Your task to perform on an android device: delete a single message in the gmail app Image 0: 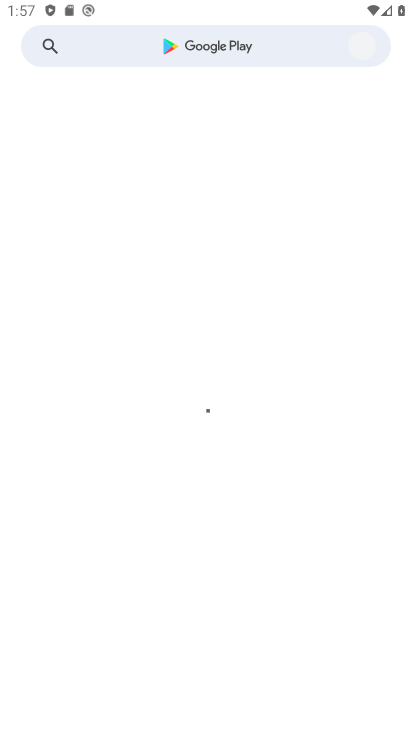
Step 0: press home button
Your task to perform on an android device: delete a single message in the gmail app Image 1: 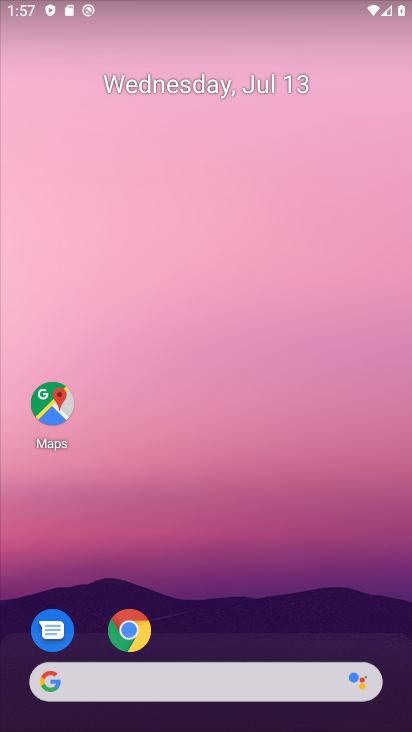
Step 1: drag from (174, 633) to (242, 164)
Your task to perform on an android device: delete a single message in the gmail app Image 2: 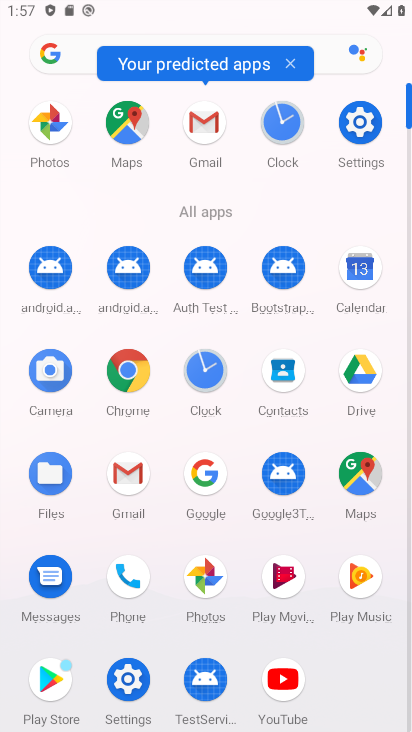
Step 2: click (127, 473)
Your task to perform on an android device: delete a single message in the gmail app Image 3: 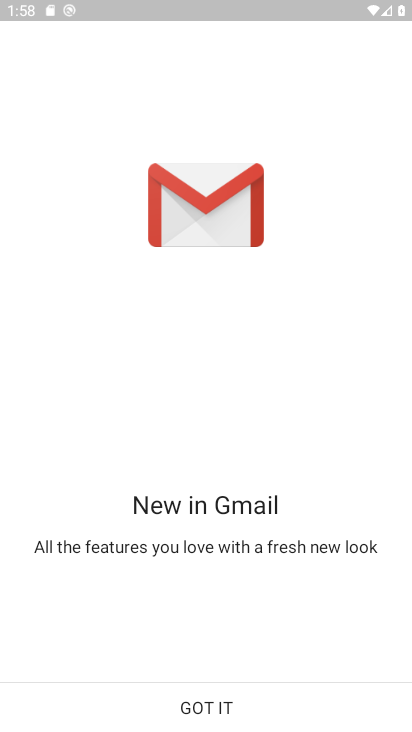
Step 3: click (205, 714)
Your task to perform on an android device: delete a single message in the gmail app Image 4: 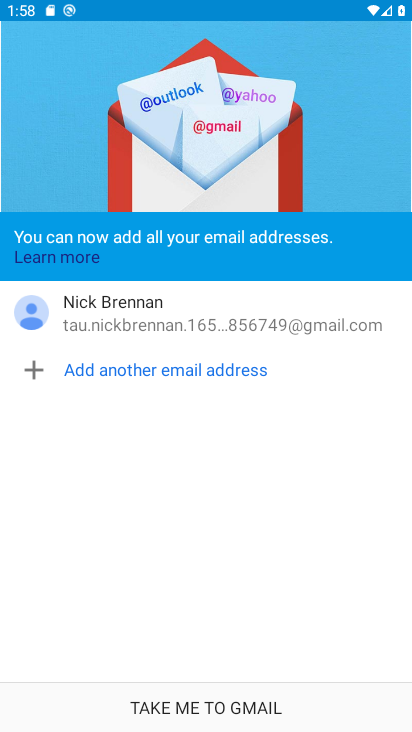
Step 4: click (206, 714)
Your task to perform on an android device: delete a single message in the gmail app Image 5: 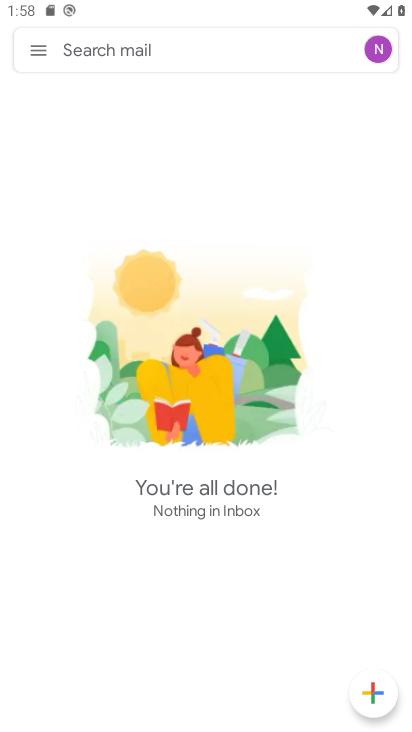
Step 5: click (49, 58)
Your task to perform on an android device: delete a single message in the gmail app Image 6: 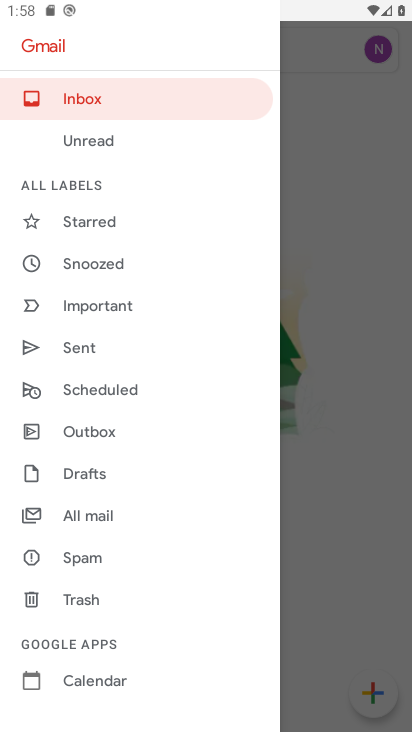
Step 6: click (143, 515)
Your task to perform on an android device: delete a single message in the gmail app Image 7: 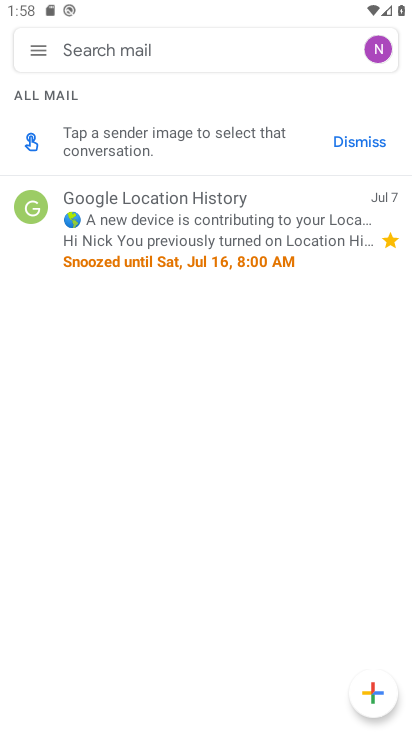
Step 7: click (188, 246)
Your task to perform on an android device: delete a single message in the gmail app Image 8: 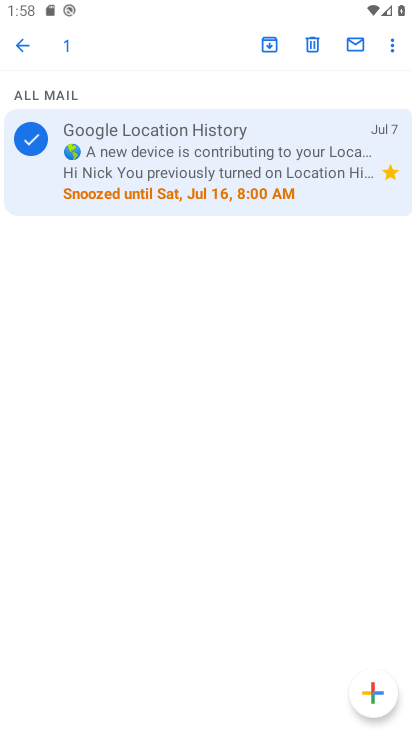
Step 8: click (306, 46)
Your task to perform on an android device: delete a single message in the gmail app Image 9: 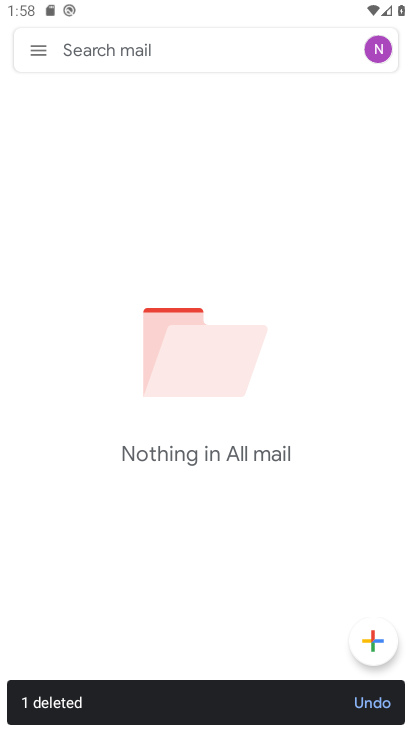
Step 9: task complete